Your task to perform on an android device: check battery use Image 0: 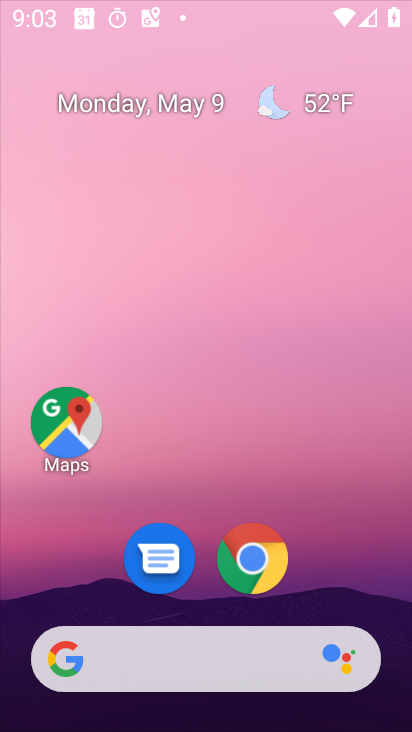
Step 0: drag from (243, 410) to (254, 223)
Your task to perform on an android device: check battery use Image 1: 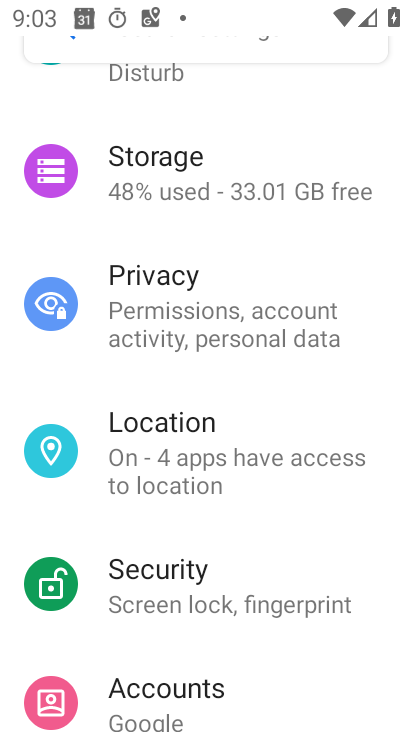
Step 1: drag from (228, 226) to (170, 617)
Your task to perform on an android device: check battery use Image 2: 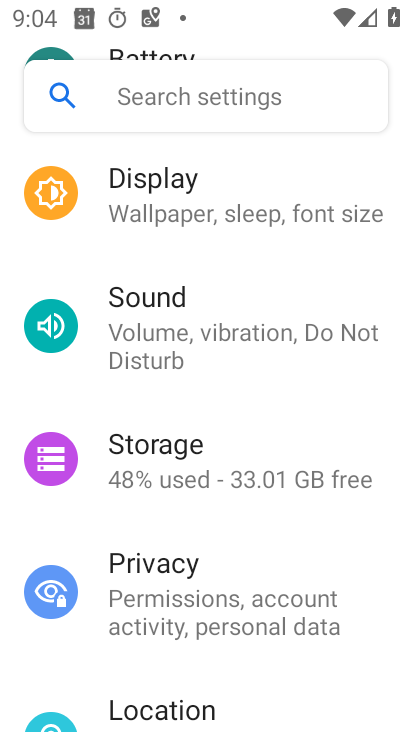
Step 2: drag from (202, 246) to (192, 553)
Your task to perform on an android device: check battery use Image 3: 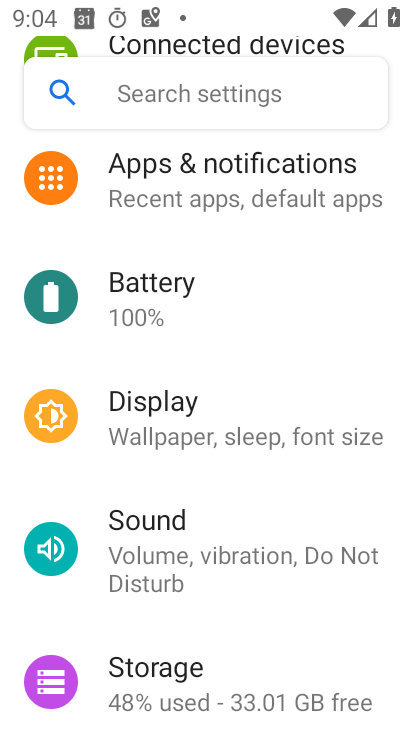
Step 3: click (172, 297)
Your task to perform on an android device: check battery use Image 4: 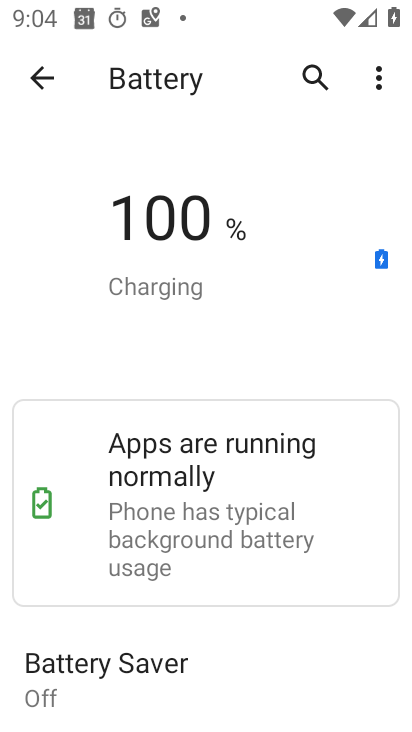
Step 4: drag from (158, 645) to (210, 680)
Your task to perform on an android device: check battery use Image 5: 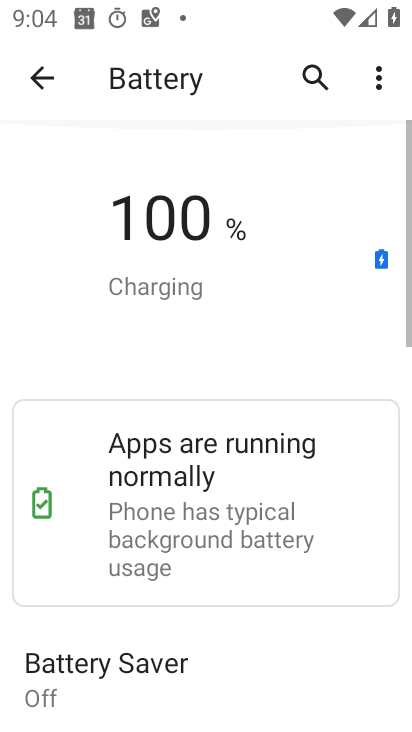
Step 5: click (378, 74)
Your task to perform on an android device: check battery use Image 6: 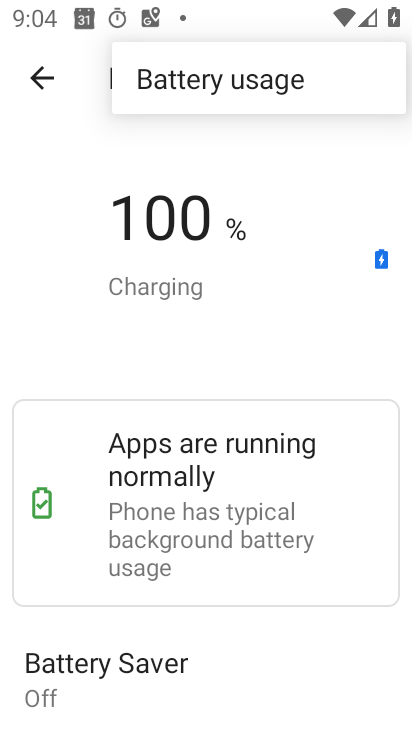
Step 6: click (176, 79)
Your task to perform on an android device: check battery use Image 7: 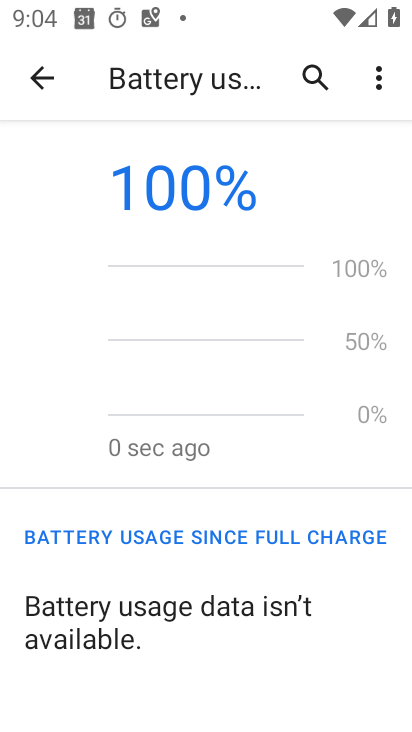
Step 7: task complete